Your task to perform on an android device: see creations saved in the google photos Image 0: 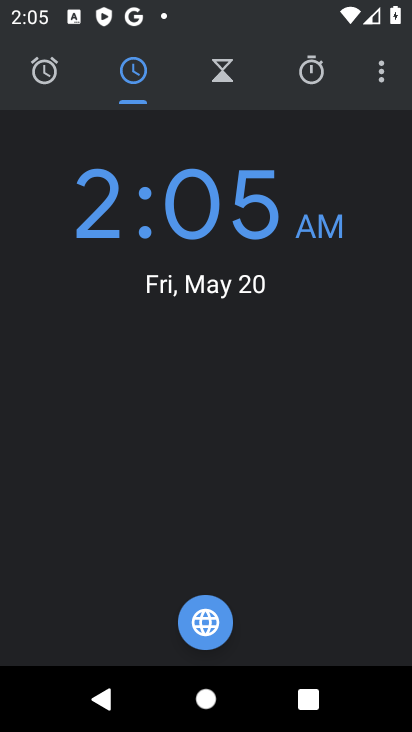
Step 0: press home button
Your task to perform on an android device: see creations saved in the google photos Image 1: 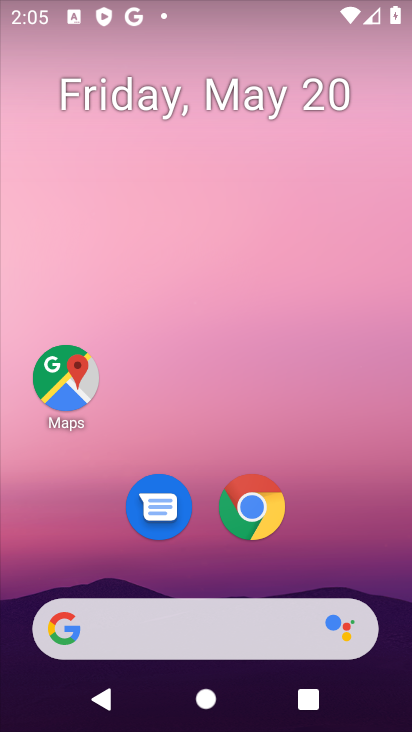
Step 1: click (234, 627)
Your task to perform on an android device: see creations saved in the google photos Image 2: 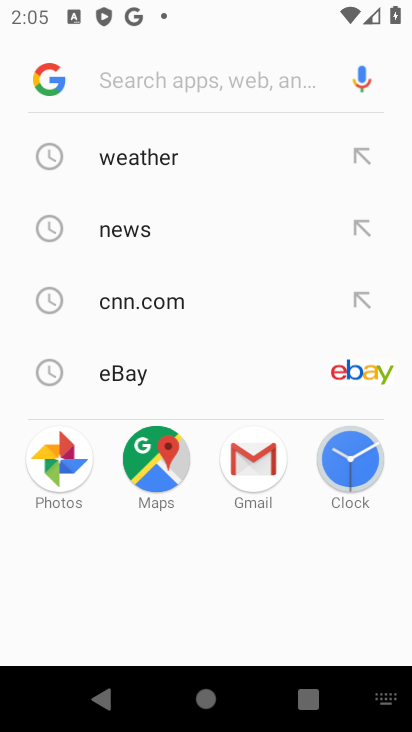
Step 2: click (203, 295)
Your task to perform on an android device: see creations saved in the google photos Image 3: 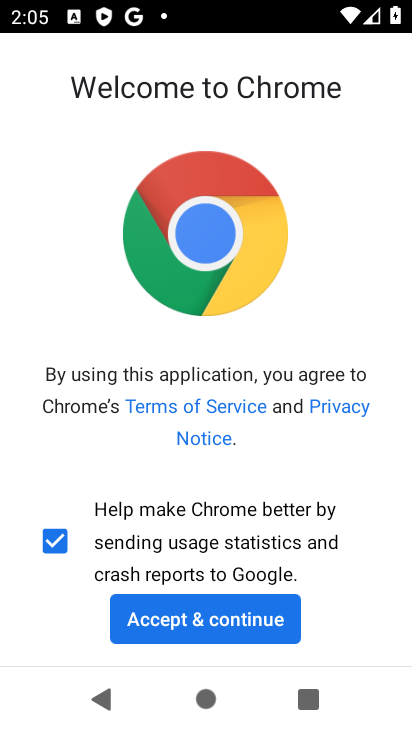
Step 3: click (179, 623)
Your task to perform on an android device: see creations saved in the google photos Image 4: 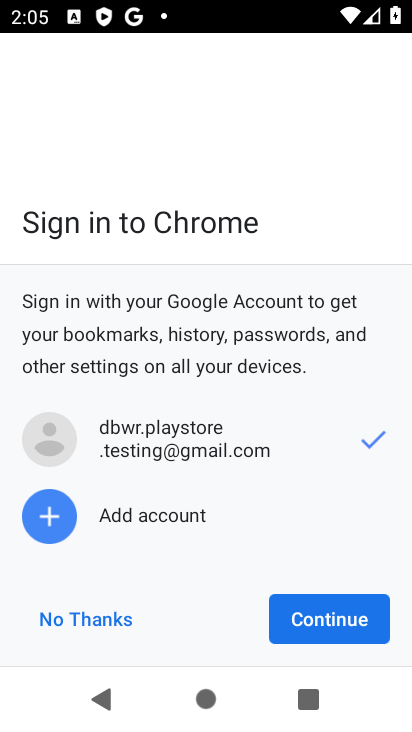
Step 4: click (368, 616)
Your task to perform on an android device: see creations saved in the google photos Image 5: 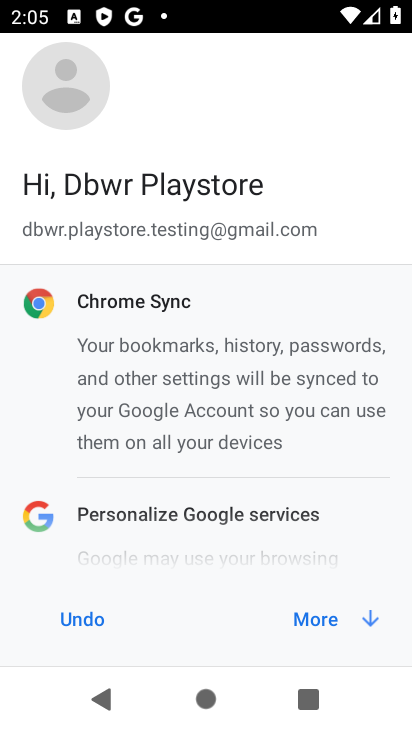
Step 5: click (368, 616)
Your task to perform on an android device: see creations saved in the google photos Image 6: 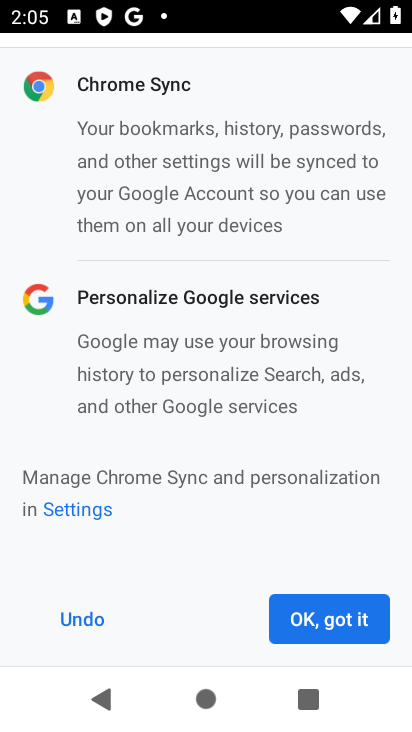
Step 6: click (368, 616)
Your task to perform on an android device: see creations saved in the google photos Image 7: 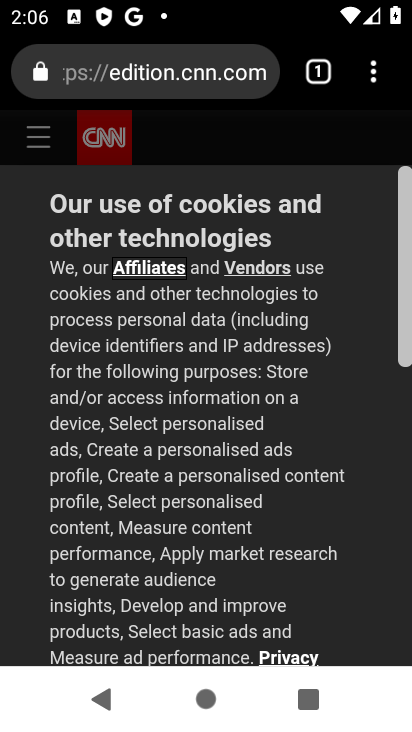
Step 7: task complete